Your task to perform on an android device: check the backup settings in the google photos Image 0: 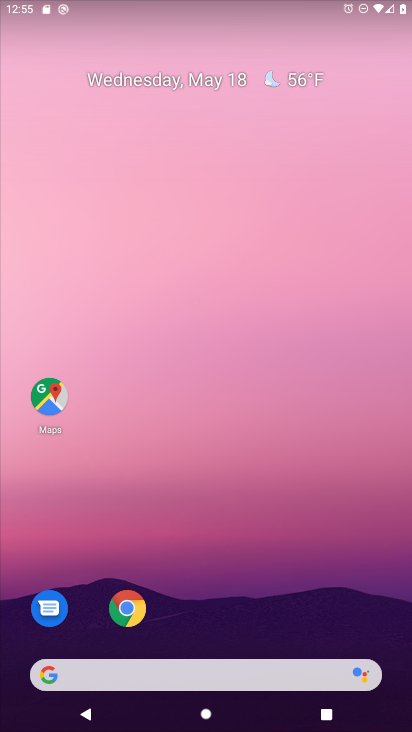
Step 0: press home button
Your task to perform on an android device: check the backup settings in the google photos Image 1: 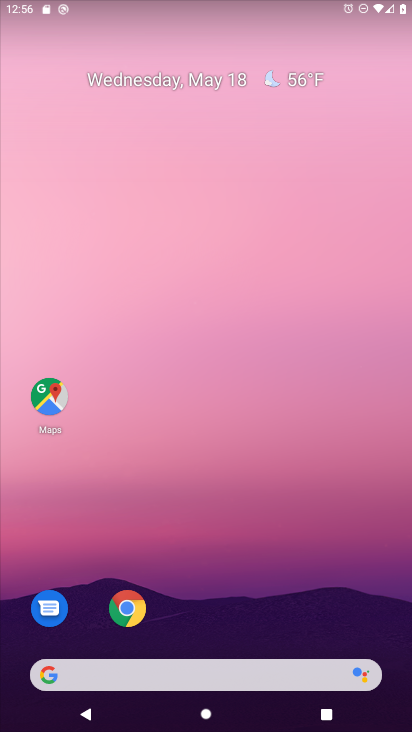
Step 1: drag from (258, 678) to (57, 164)
Your task to perform on an android device: check the backup settings in the google photos Image 2: 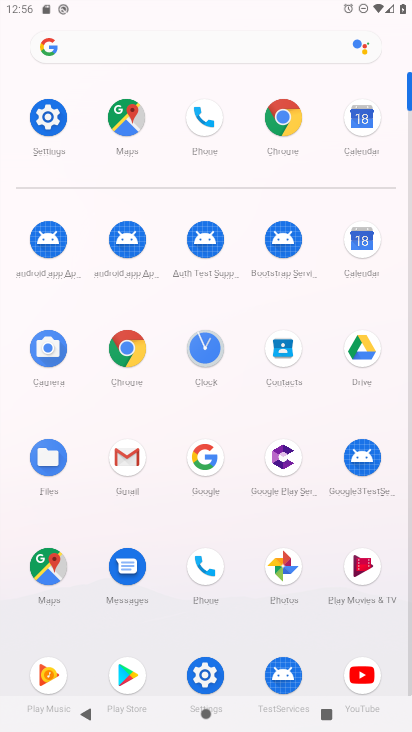
Step 2: click (295, 563)
Your task to perform on an android device: check the backup settings in the google photos Image 3: 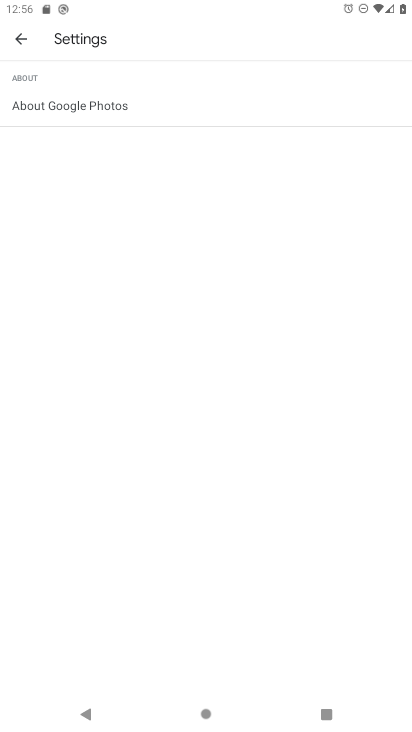
Step 3: click (27, 29)
Your task to perform on an android device: check the backup settings in the google photos Image 4: 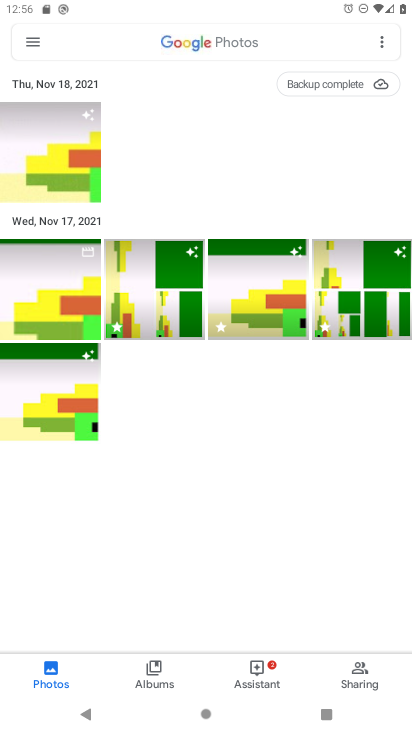
Step 4: click (28, 43)
Your task to perform on an android device: check the backup settings in the google photos Image 5: 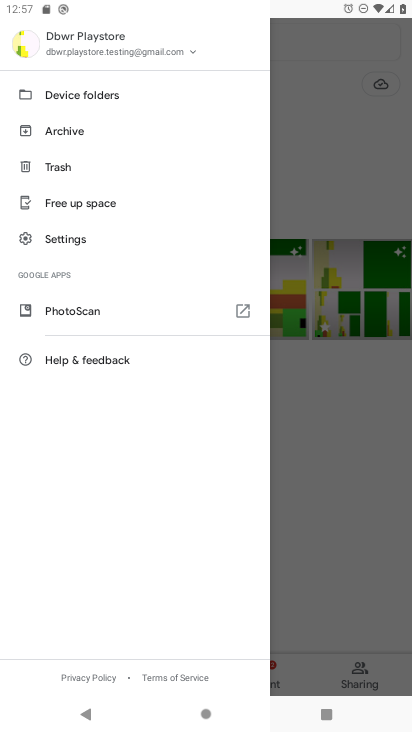
Step 5: click (72, 237)
Your task to perform on an android device: check the backup settings in the google photos Image 6: 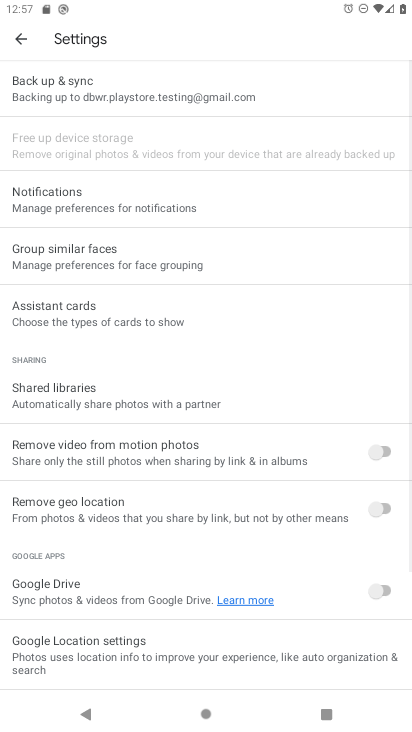
Step 6: click (104, 97)
Your task to perform on an android device: check the backup settings in the google photos Image 7: 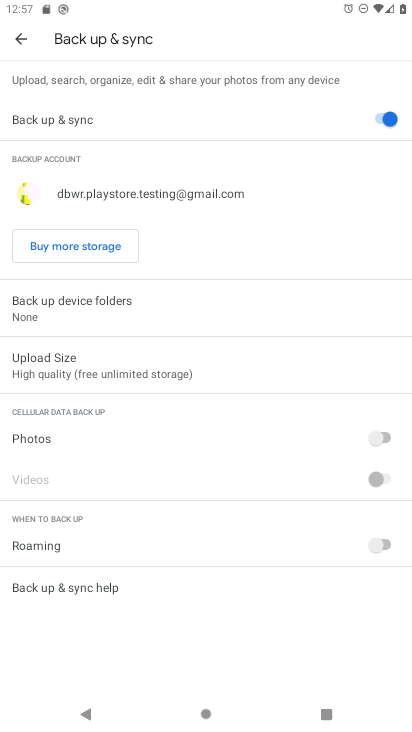
Step 7: task complete